Your task to perform on an android device: search for starred emails in the gmail app Image 0: 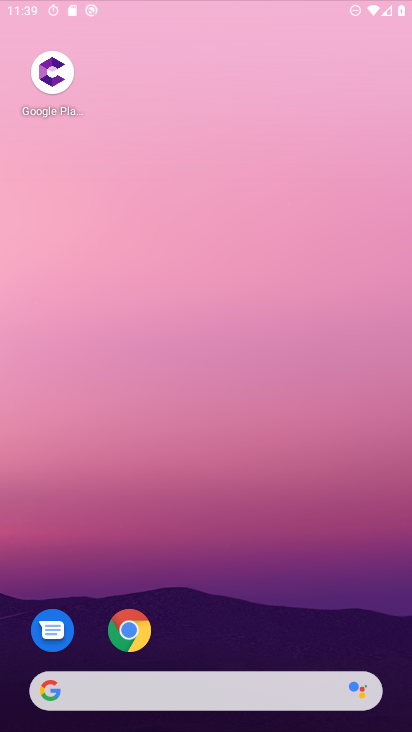
Step 0: click (267, 329)
Your task to perform on an android device: search for starred emails in the gmail app Image 1: 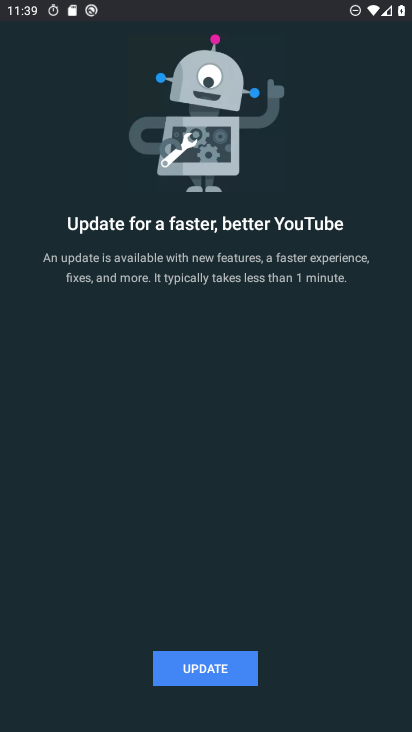
Step 1: press home button
Your task to perform on an android device: search for starred emails in the gmail app Image 2: 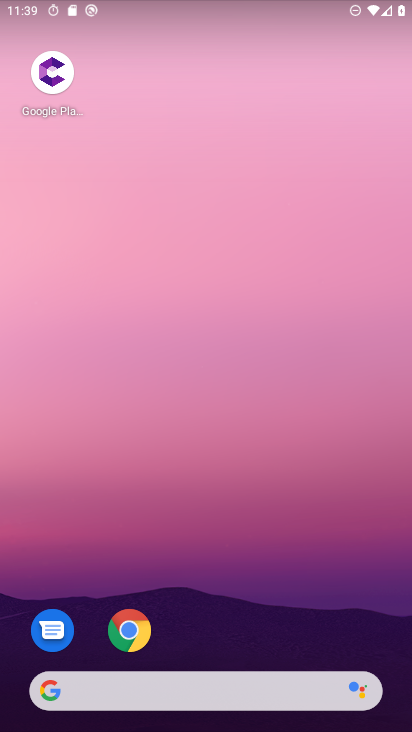
Step 2: drag from (265, 685) to (219, 171)
Your task to perform on an android device: search for starred emails in the gmail app Image 3: 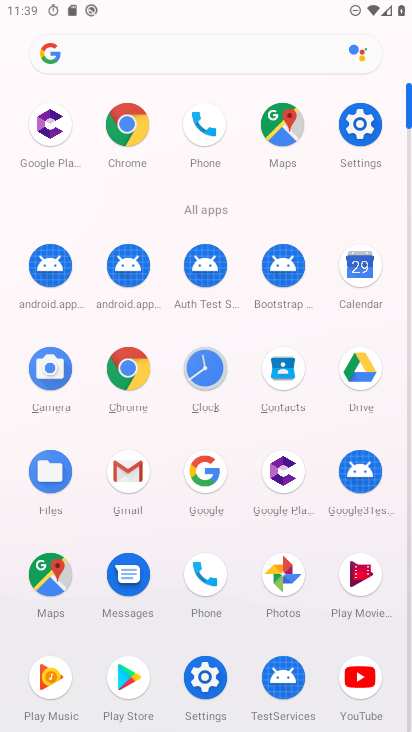
Step 3: click (137, 485)
Your task to perform on an android device: search for starred emails in the gmail app Image 4: 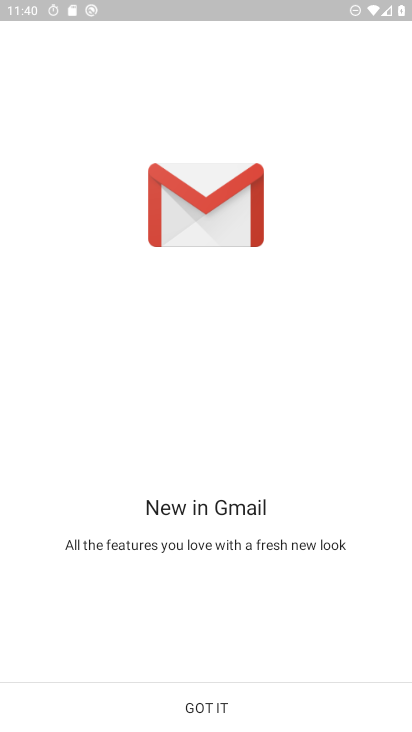
Step 4: click (209, 702)
Your task to perform on an android device: search for starred emails in the gmail app Image 5: 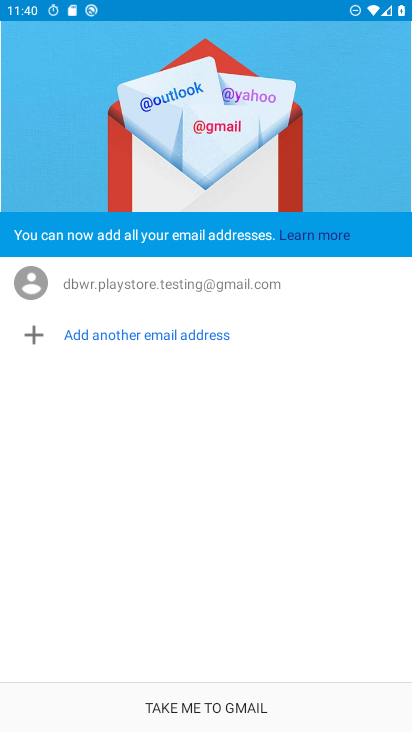
Step 5: click (211, 708)
Your task to perform on an android device: search for starred emails in the gmail app Image 6: 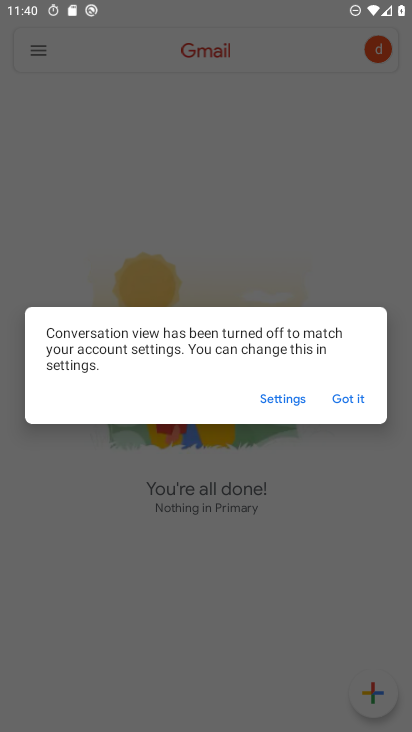
Step 6: click (345, 394)
Your task to perform on an android device: search for starred emails in the gmail app Image 7: 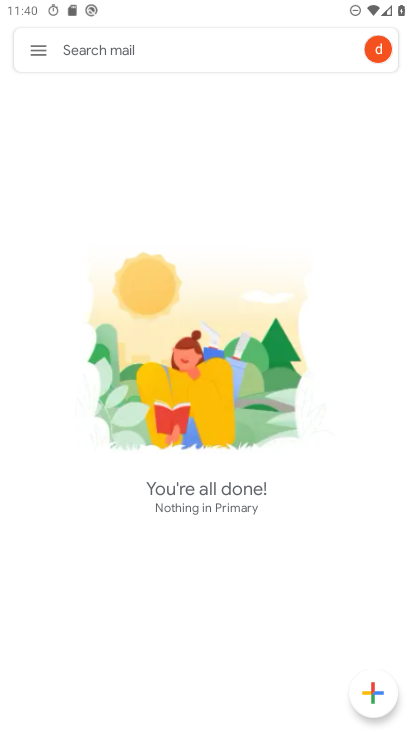
Step 7: click (36, 42)
Your task to perform on an android device: search for starred emails in the gmail app Image 8: 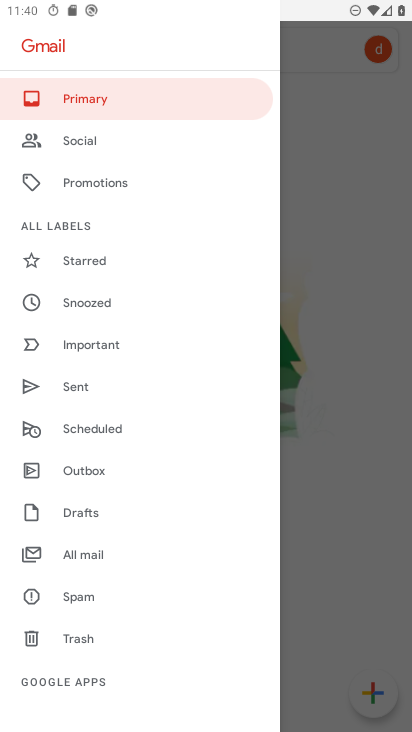
Step 8: click (95, 262)
Your task to perform on an android device: search for starred emails in the gmail app Image 9: 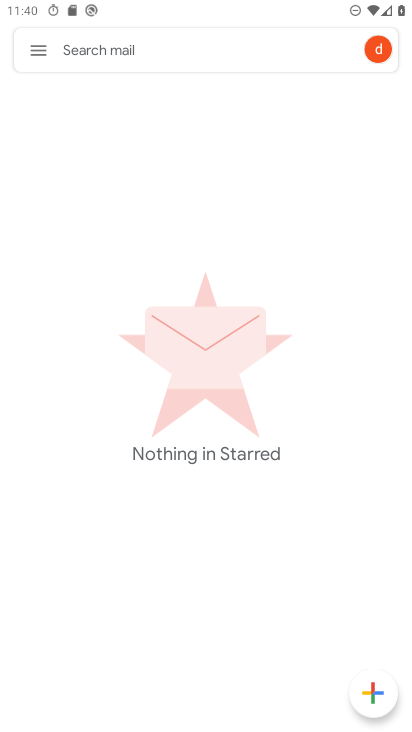
Step 9: task complete